Your task to perform on an android device: open a new tab in the chrome app Image 0: 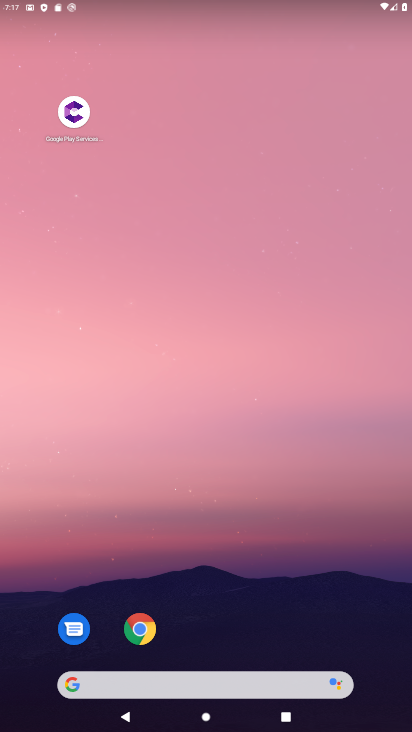
Step 0: drag from (213, 608) to (276, 7)
Your task to perform on an android device: open a new tab in the chrome app Image 1: 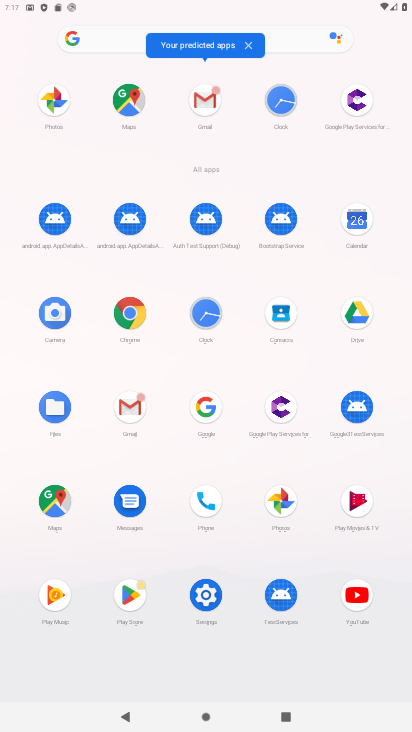
Step 1: click (135, 325)
Your task to perform on an android device: open a new tab in the chrome app Image 2: 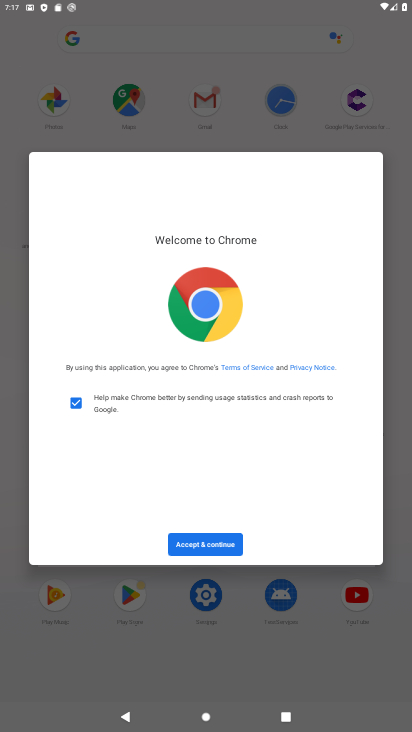
Step 2: click (205, 542)
Your task to perform on an android device: open a new tab in the chrome app Image 3: 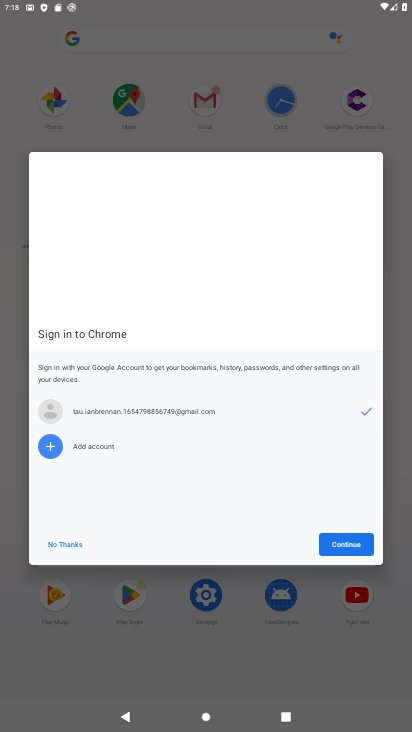
Step 3: click (361, 544)
Your task to perform on an android device: open a new tab in the chrome app Image 4: 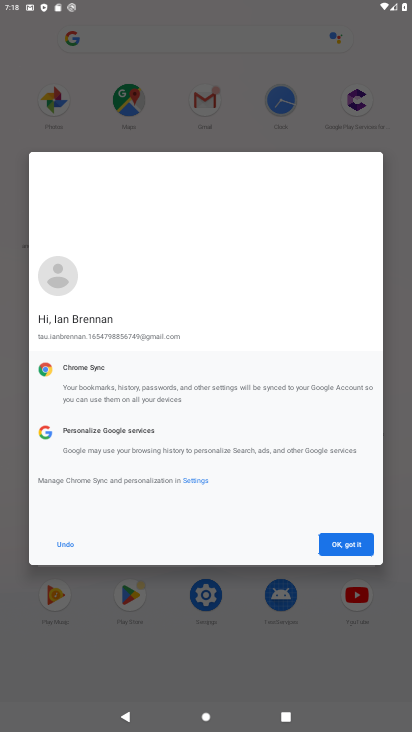
Step 4: click (360, 544)
Your task to perform on an android device: open a new tab in the chrome app Image 5: 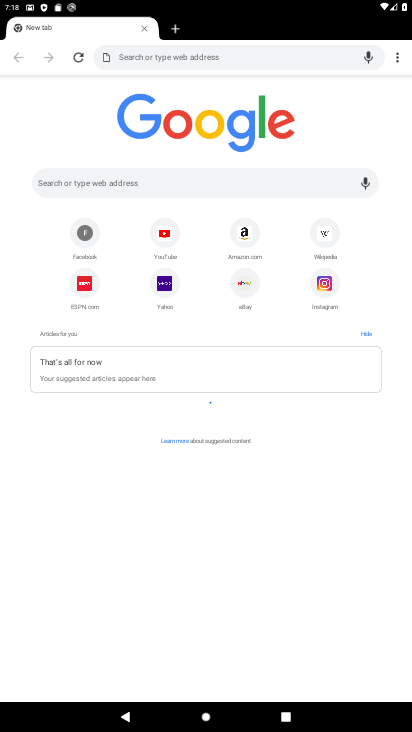
Step 5: click (172, 38)
Your task to perform on an android device: open a new tab in the chrome app Image 6: 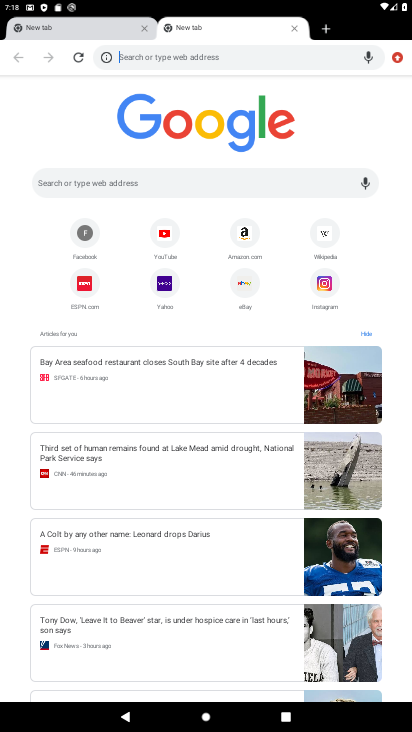
Step 6: task complete